Your task to perform on an android device: Show me productivity apps on the Play Store Image 0: 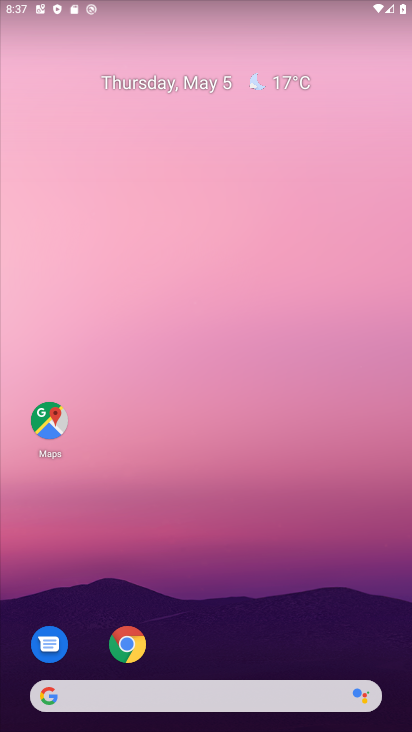
Step 0: drag from (226, 619) to (217, 300)
Your task to perform on an android device: Show me productivity apps on the Play Store Image 1: 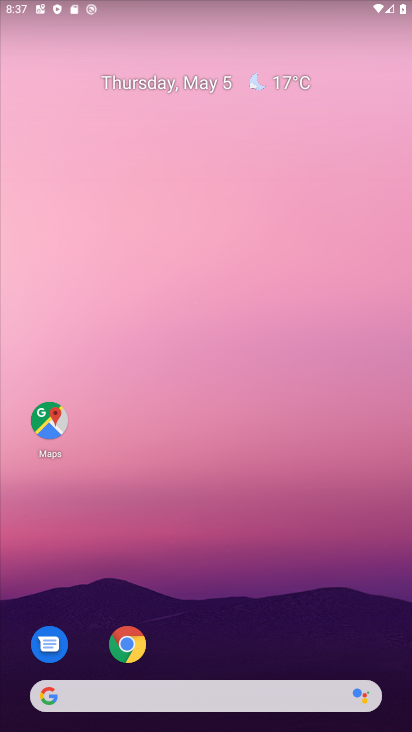
Step 1: drag from (214, 618) to (216, 185)
Your task to perform on an android device: Show me productivity apps on the Play Store Image 2: 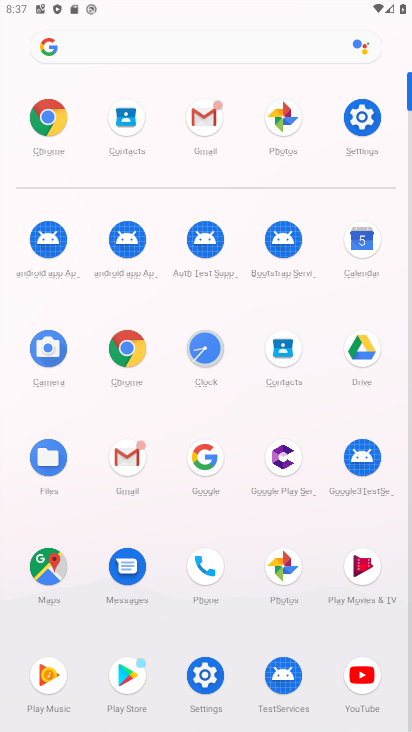
Step 2: click (126, 669)
Your task to perform on an android device: Show me productivity apps on the Play Store Image 3: 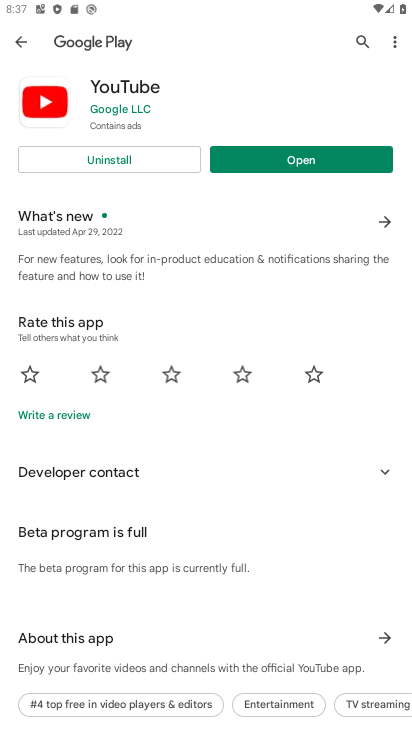
Step 3: click (12, 35)
Your task to perform on an android device: Show me productivity apps on the Play Store Image 4: 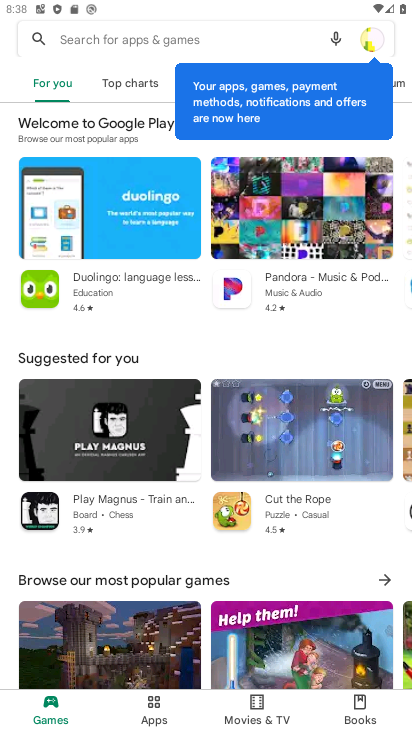
Step 4: click (156, 711)
Your task to perform on an android device: Show me productivity apps on the Play Store Image 5: 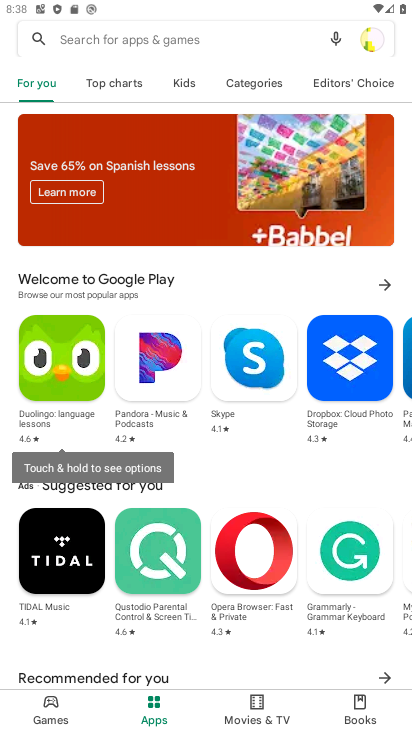
Step 5: click (247, 86)
Your task to perform on an android device: Show me productivity apps on the Play Store Image 6: 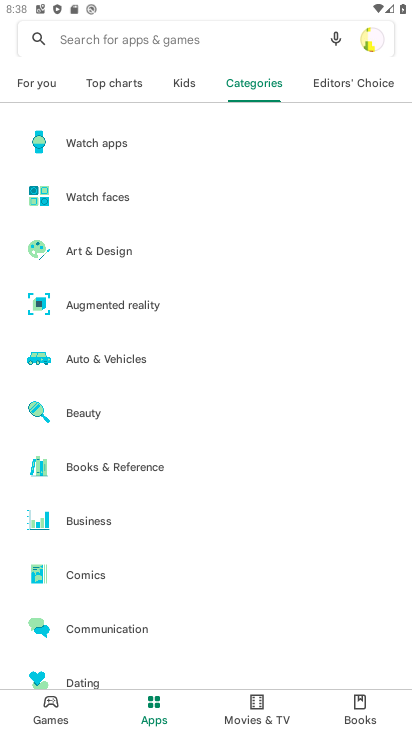
Step 6: drag from (179, 591) to (186, 162)
Your task to perform on an android device: Show me productivity apps on the Play Store Image 7: 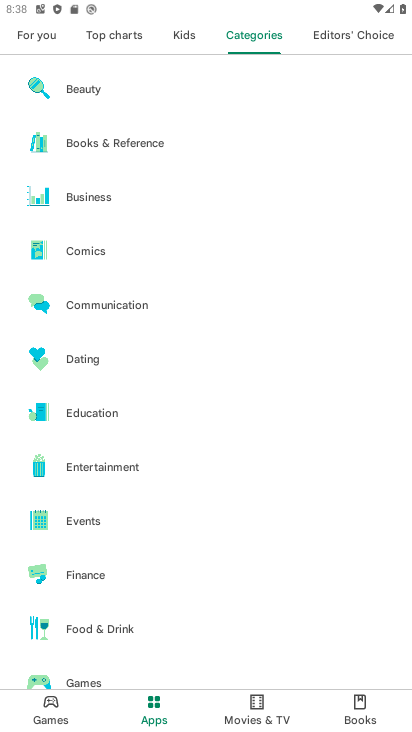
Step 7: drag from (175, 505) to (176, 111)
Your task to perform on an android device: Show me productivity apps on the Play Store Image 8: 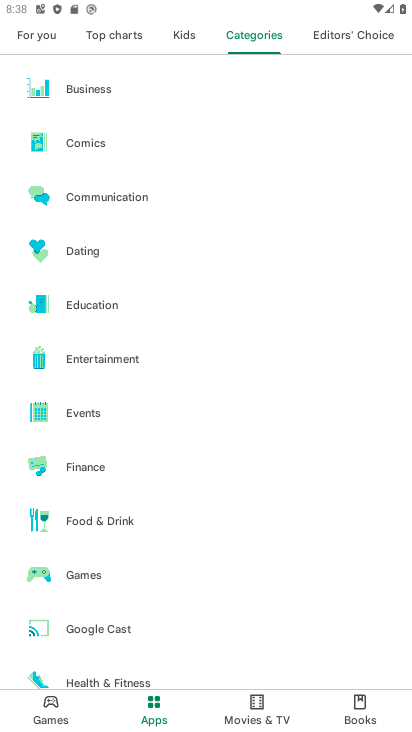
Step 8: drag from (129, 644) to (121, 148)
Your task to perform on an android device: Show me productivity apps on the Play Store Image 9: 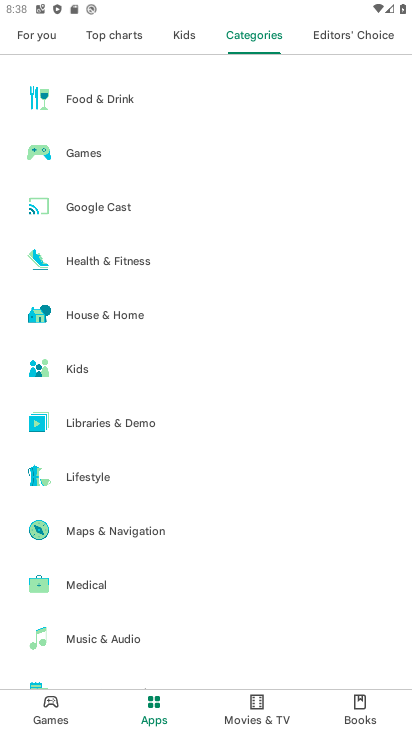
Step 9: drag from (122, 548) to (132, 128)
Your task to perform on an android device: Show me productivity apps on the Play Store Image 10: 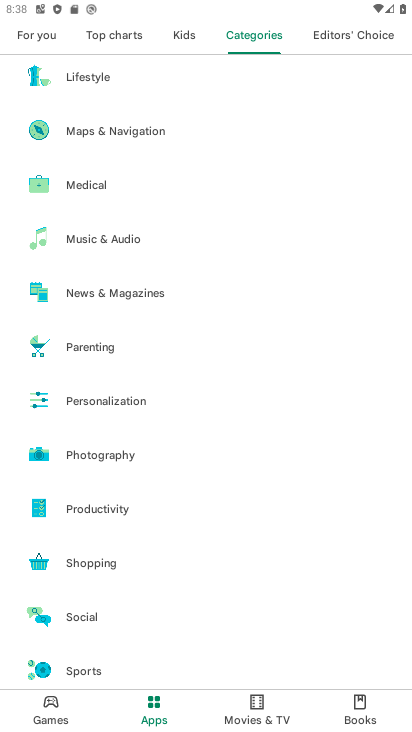
Step 10: click (89, 509)
Your task to perform on an android device: Show me productivity apps on the Play Store Image 11: 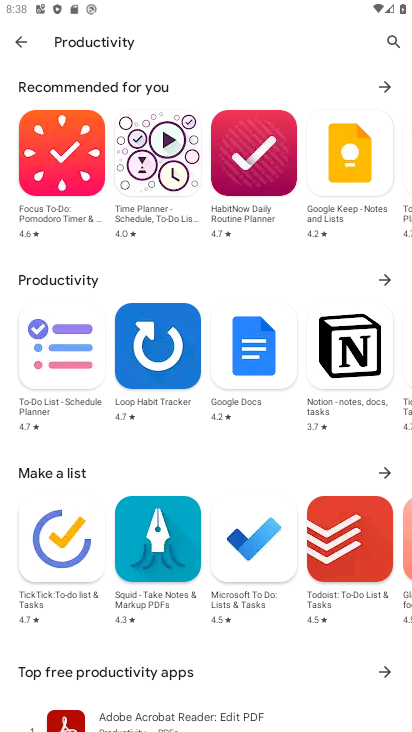
Step 11: task complete